Your task to perform on an android device: Open accessibility settings Image 0: 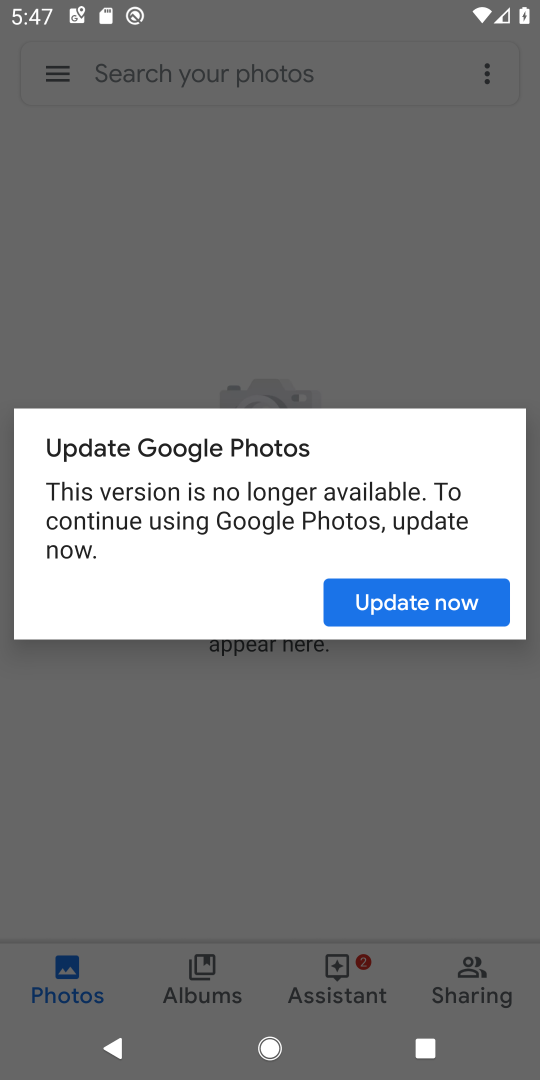
Step 0: press home button
Your task to perform on an android device: Open accessibility settings Image 1: 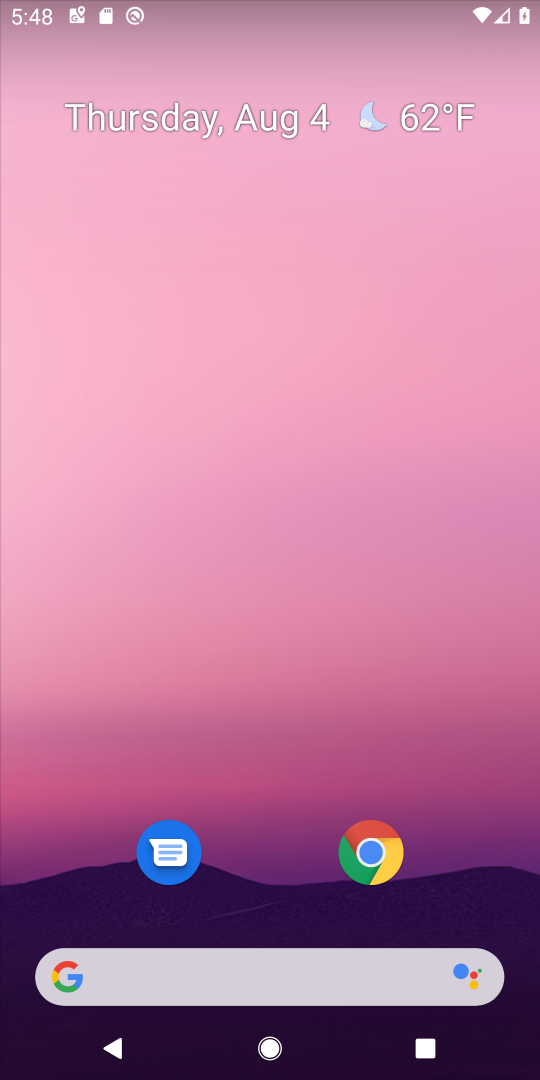
Step 1: drag from (276, 843) to (274, 134)
Your task to perform on an android device: Open accessibility settings Image 2: 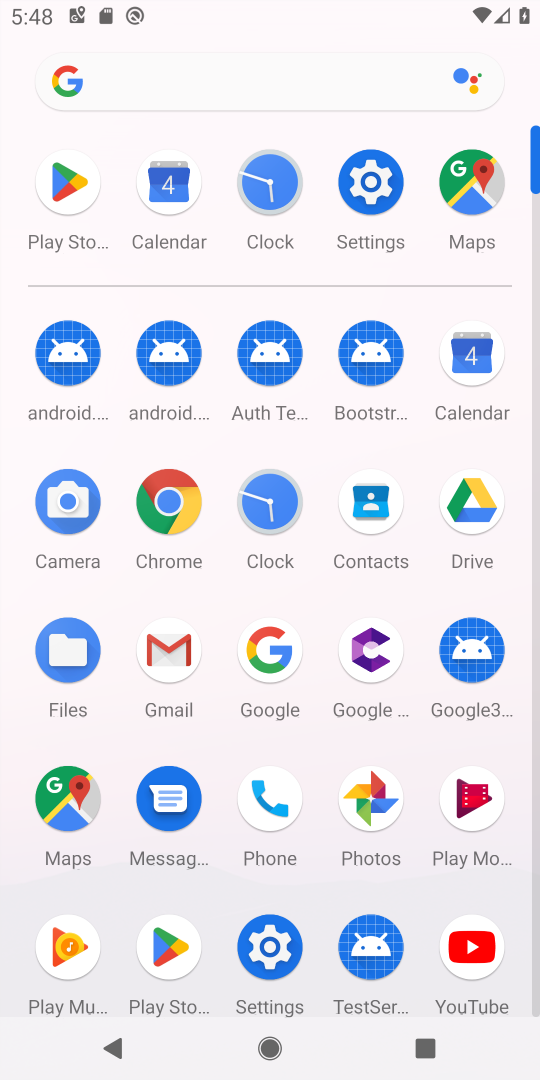
Step 2: click (368, 170)
Your task to perform on an android device: Open accessibility settings Image 3: 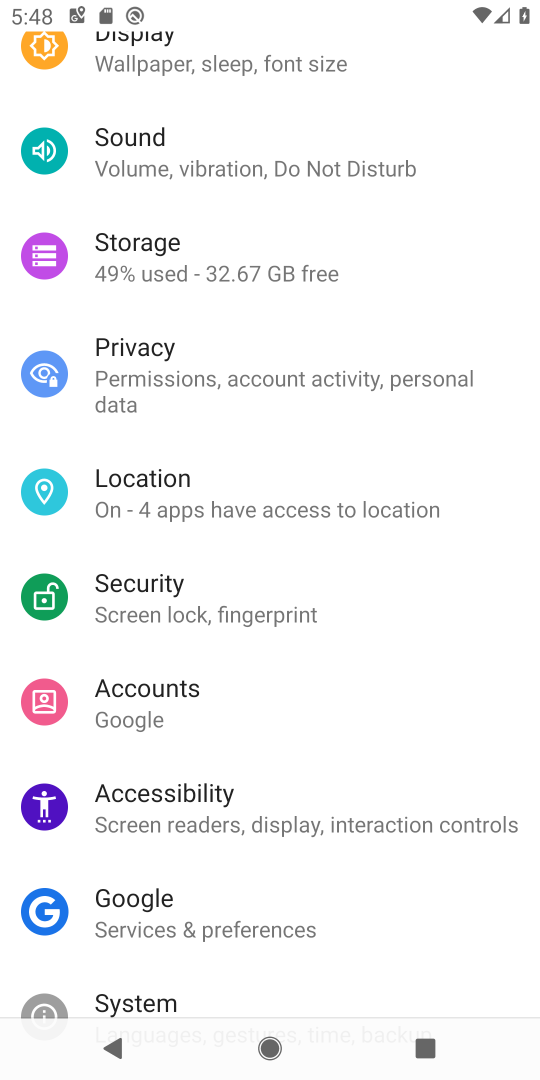
Step 3: click (166, 813)
Your task to perform on an android device: Open accessibility settings Image 4: 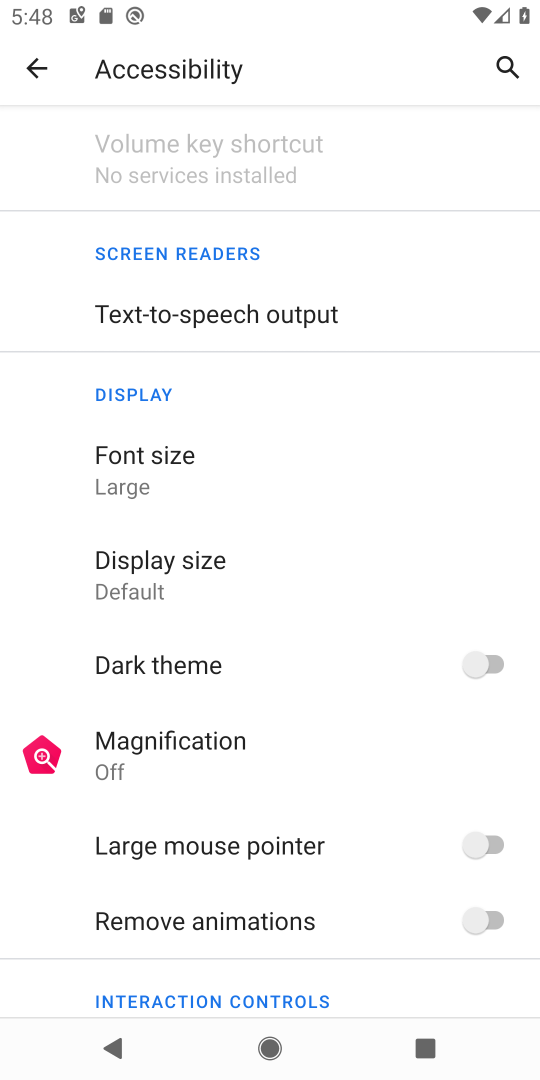
Step 4: task complete